Your task to perform on an android device: open chrome and create a bookmark for the current page Image 0: 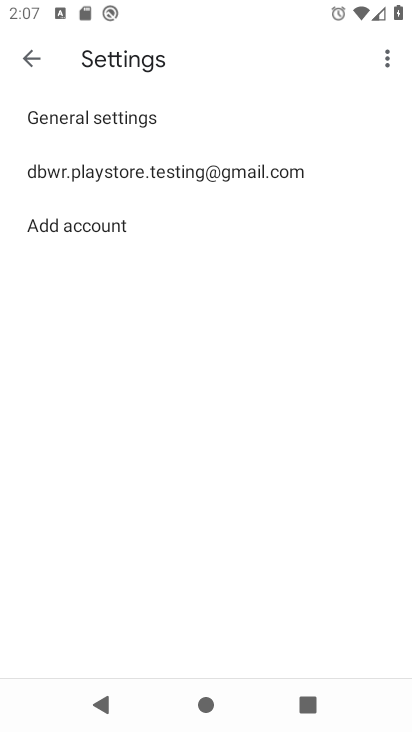
Step 0: press home button
Your task to perform on an android device: open chrome and create a bookmark for the current page Image 1: 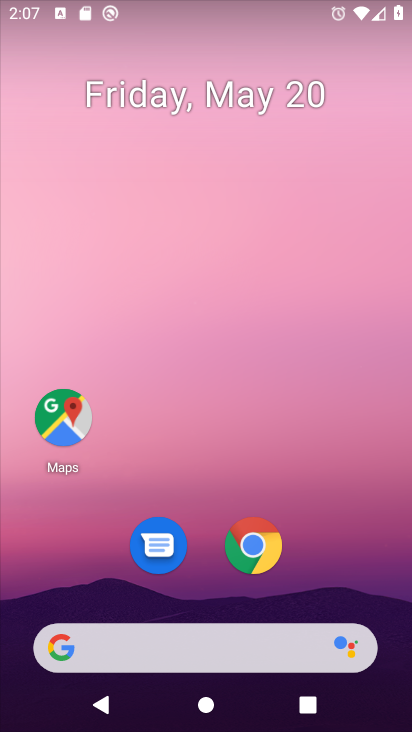
Step 1: drag from (306, 612) to (300, 0)
Your task to perform on an android device: open chrome and create a bookmark for the current page Image 2: 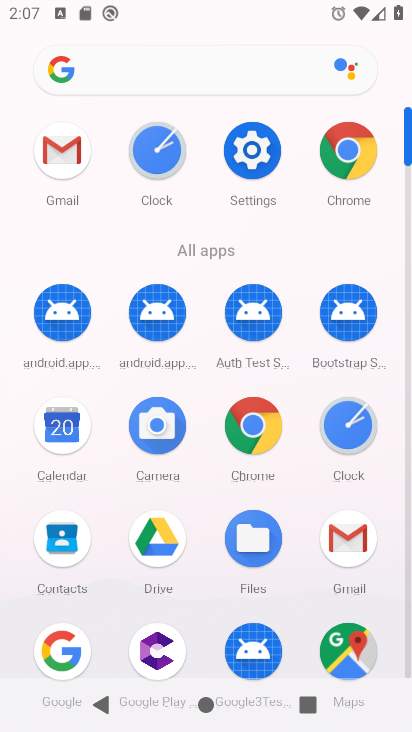
Step 2: click (242, 440)
Your task to perform on an android device: open chrome and create a bookmark for the current page Image 3: 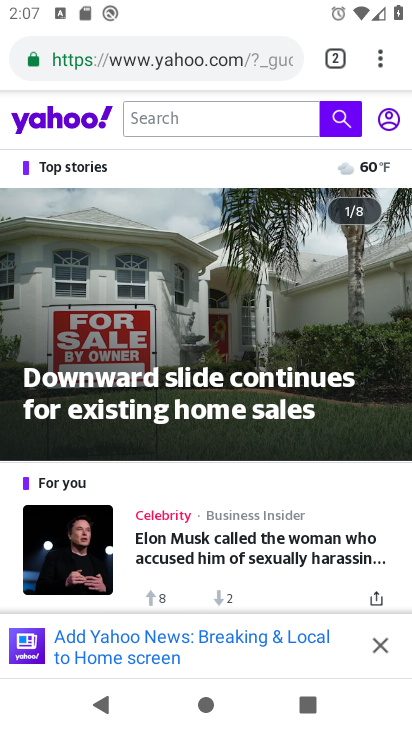
Step 3: task complete